Your task to perform on an android device: toggle notification dots Image 0: 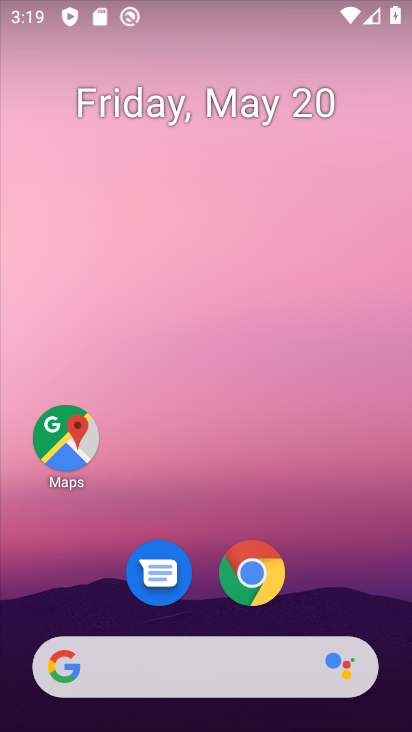
Step 0: drag from (141, 350) to (86, 118)
Your task to perform on an android device: toggle notification dots Image 1: 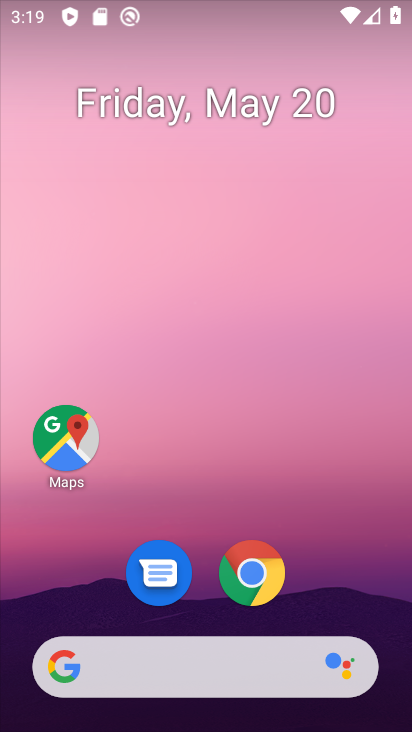
Step 1: drag from (217, 636) to (105, 6)
Your task to perform on an android device: toggle notification dots Image 2: 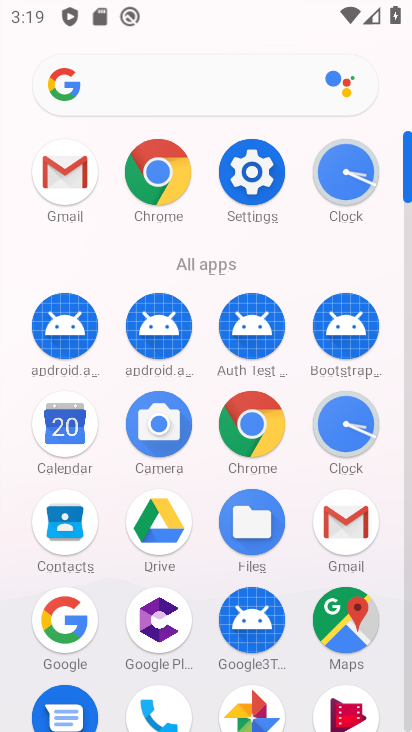
Step 2: click (243, 195)
Your task to perform on an android device: toggle notification dots Image 3: 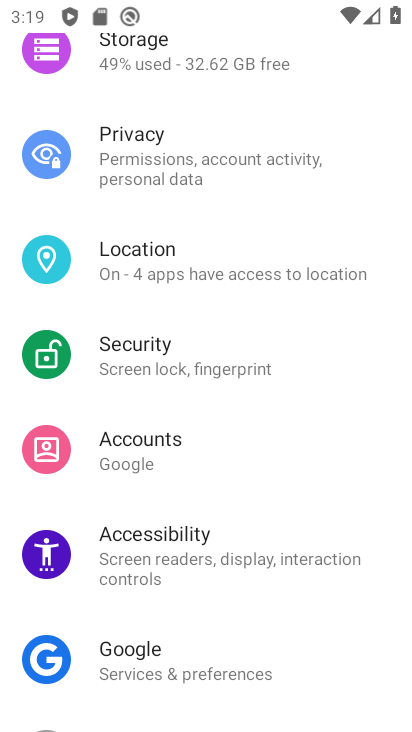
Step 3: drag from (265, 469) to (210, 79)
Your task to perform on an android device: toggle notification dots Image 4: 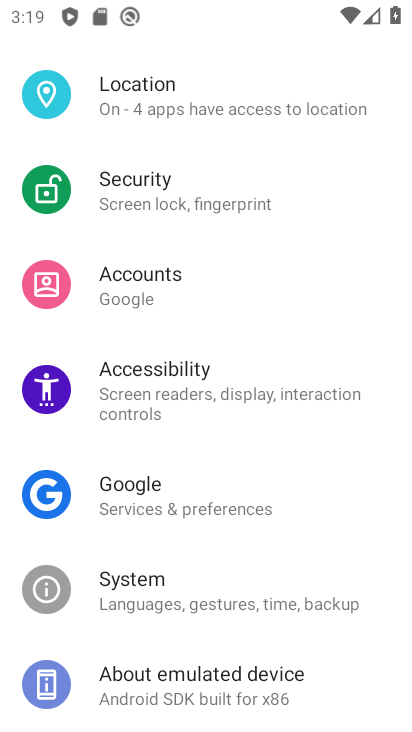
Step 4: drag from (213, 218) to (202, 663)
Your task to perform on an android device: toggle notification dots Image 5: 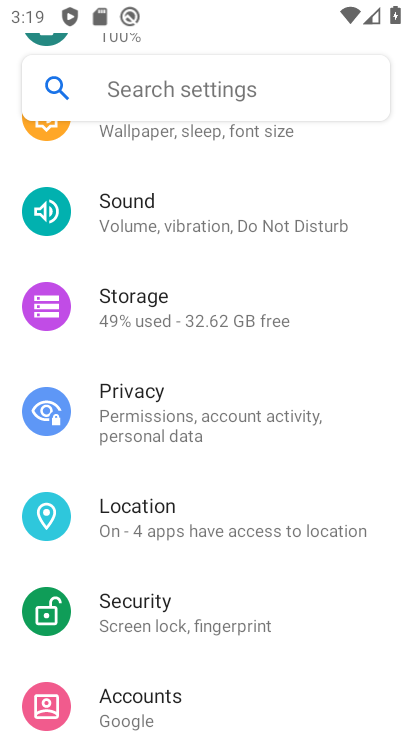
Step 5: drag from (166, 202) to (158, 581)
Your task to perform on an android device: toggle notification dots Image 6: 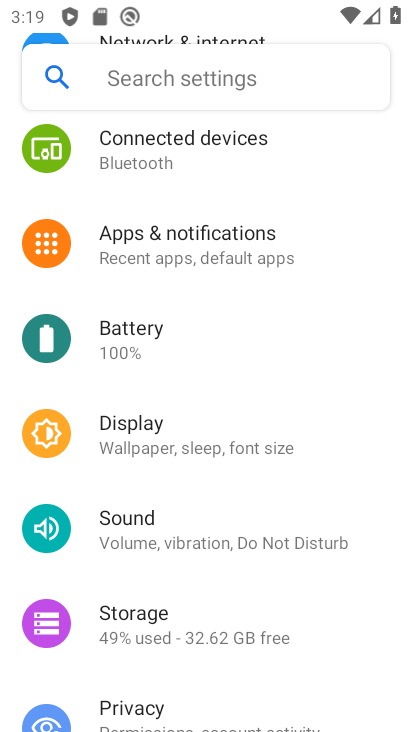
Step 6: click (126, 260)
Your task to perform on an android device: toggle notification dots Image 7: 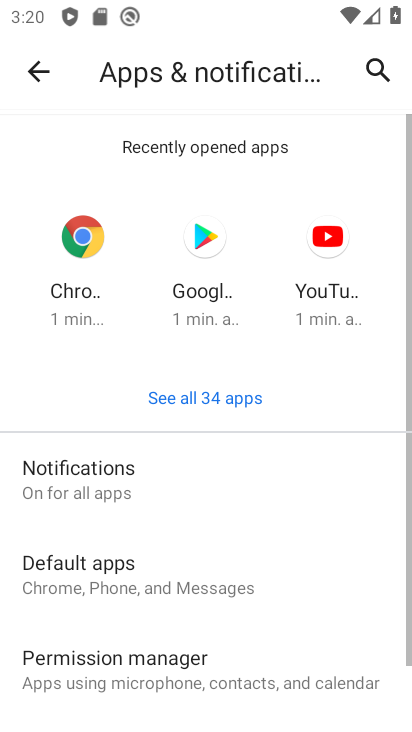
Step 7: click (166, 468)
Your task to perform on an android device: toggle notification dots Image 8: 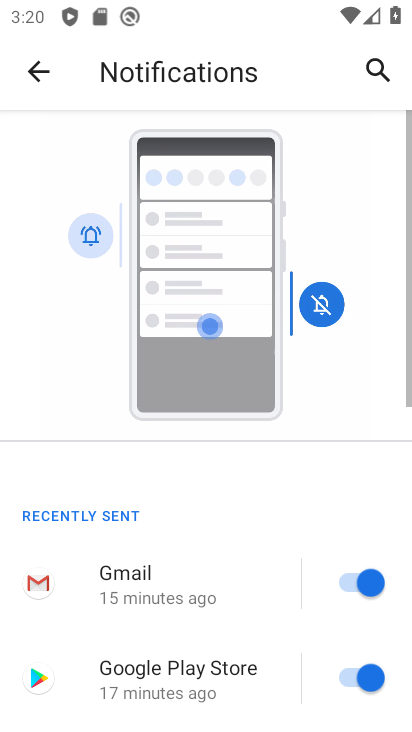
Step 8: drag from (188, 618) to (100, 29)
Your task to perform on an android device: toggle notification dots Image 9: 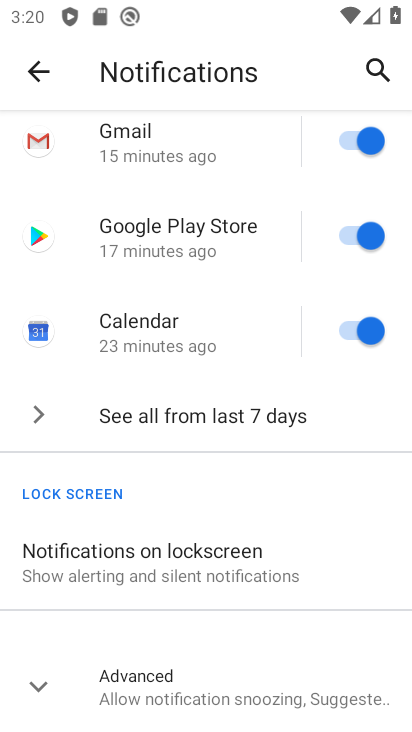
Step 9: click (205, 663)
Your task to perform on an android device: toggle notification dots Image 10: 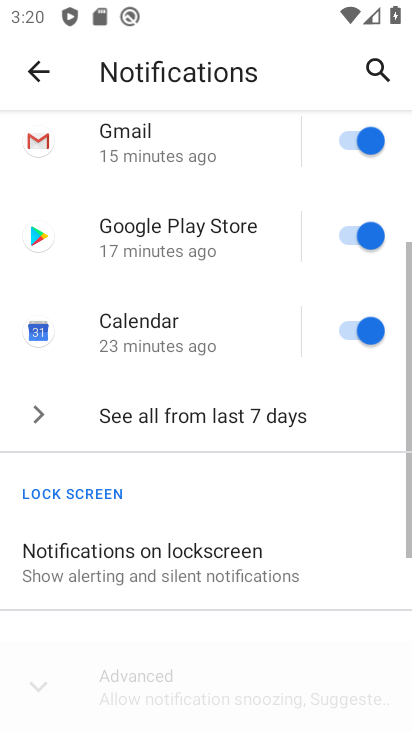
Step 10: drag from (205, 663) to (132, 214)
Your task to perform on an android device: toggle notification dots Image 11: 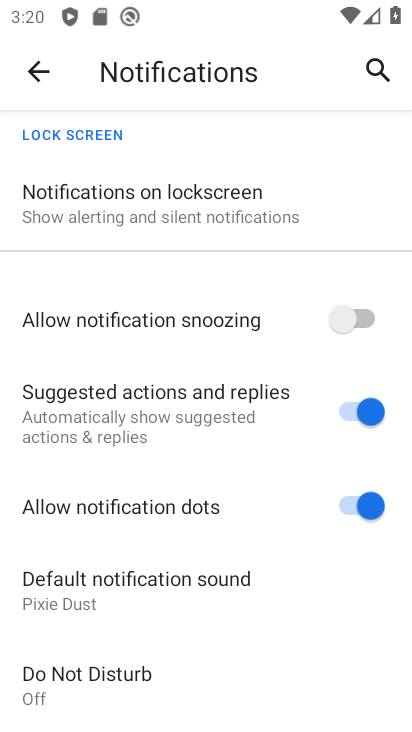
Step 11: click (354, 508)
Your task to perform on an android device: toggle notification dots Image 12: 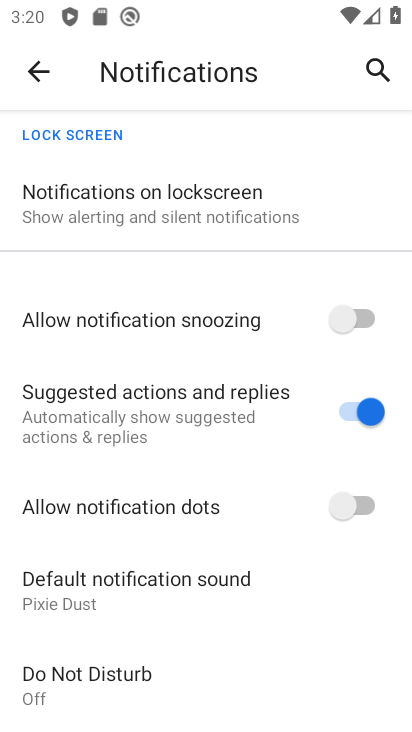
Step 12: task complete